Your task to perform on an android device: check the backup settings in the google photos Image 0: 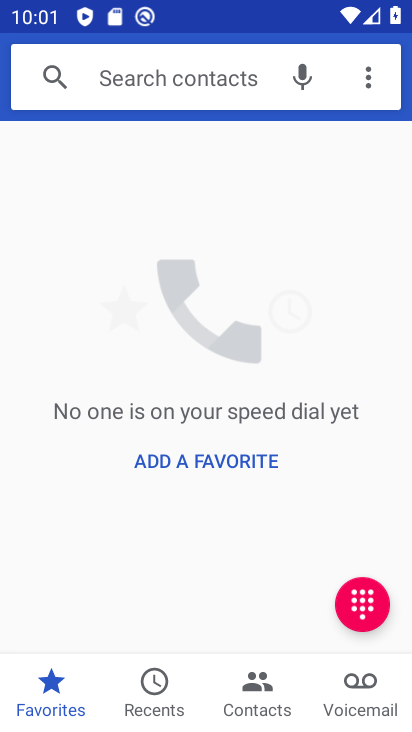
Step 0: press home button
Your task to perform on an android device: check the backup settings in the google photos Image 1: 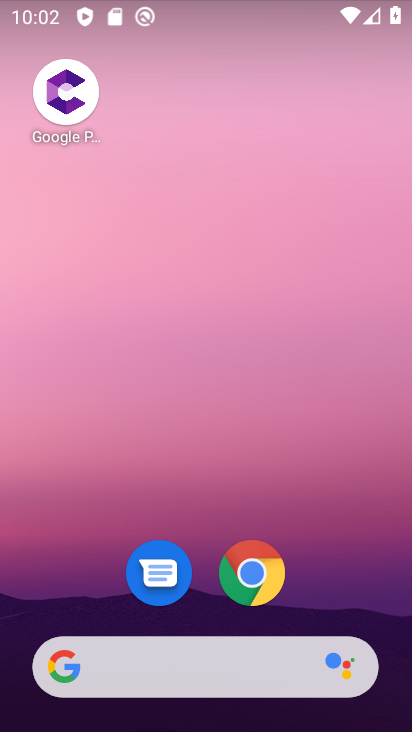
Step 1: drag from (207, 648) to (7, 15)
Your task to perform on an android device: check the backup settings in the google photos Image 2: 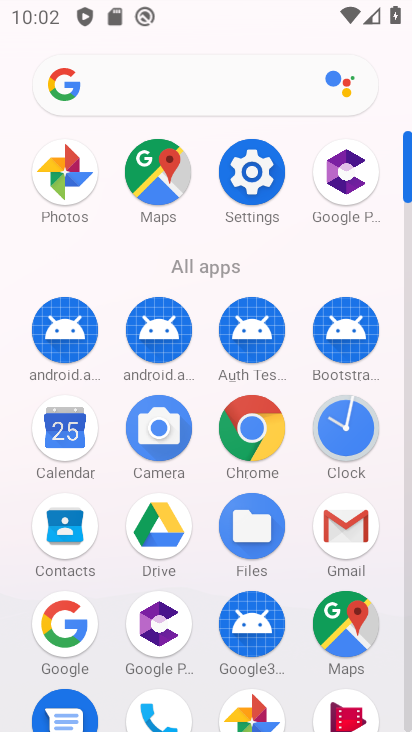
Step 2: click (74, 187)
Your task to perform on an android device: check the backup settings in the google photos Image 3: 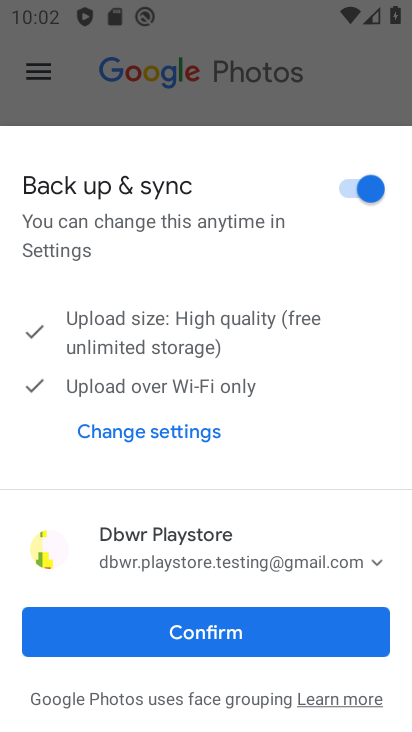
Step 3: click (224, 631)
Your task to perform on an android device: check the backup settings in the google photos Image 4: 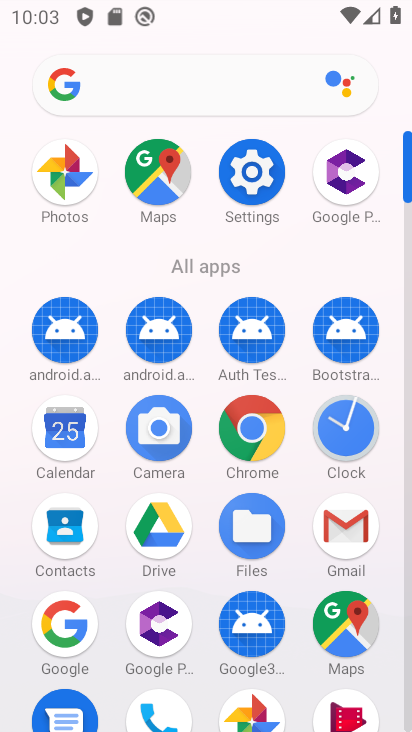
Step 4: click (257, 699)
Your task to perform on an android device: check the backup settings in the google photos Image 5: 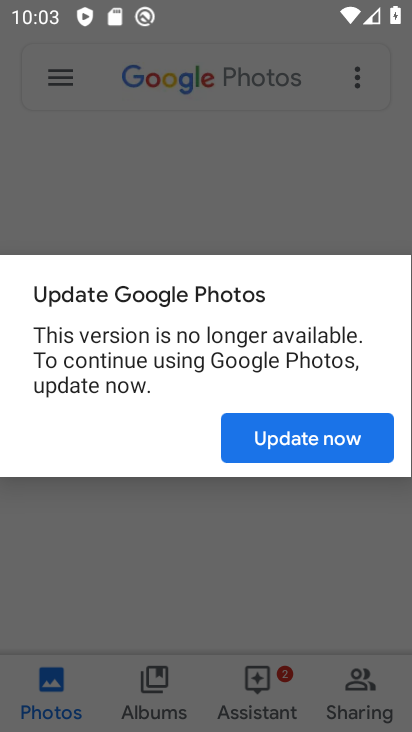
Step 5: click (298, 442)
Your task to perform on an android device: check the backup settings in the google photos Image 6: 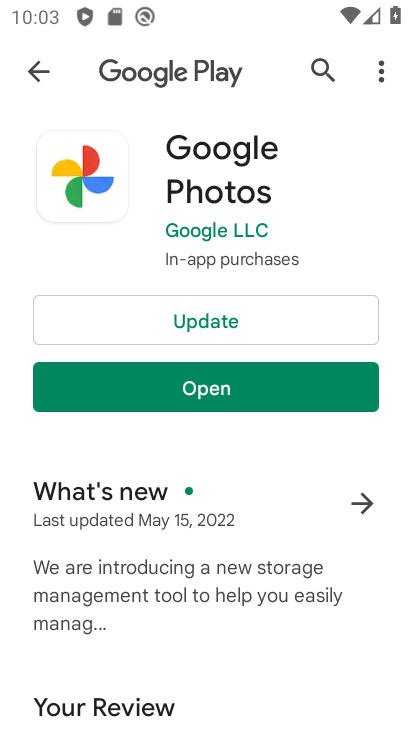
Step 6: click (200, 342)
Your task to perform on an android device: check the backup settings in the google photos Image 7: 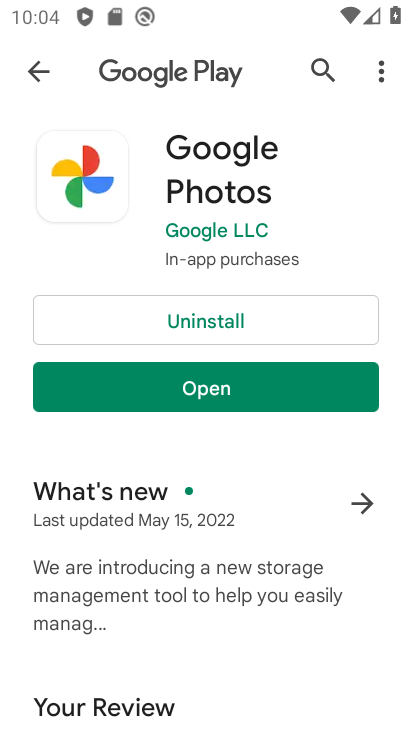
Step 7: click (232, 390)
Your task to perform on an android device: check the backup settings in the google photos Image 8: 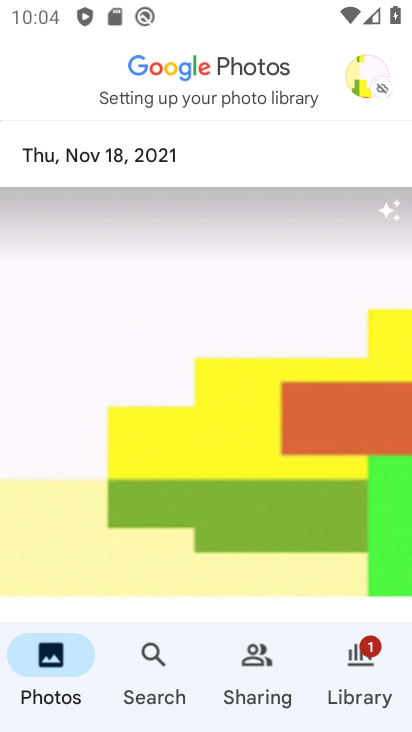
Step 8: click (357, 91)
Your task to perform on an android device: check the backup settings in the google photos Image 9: 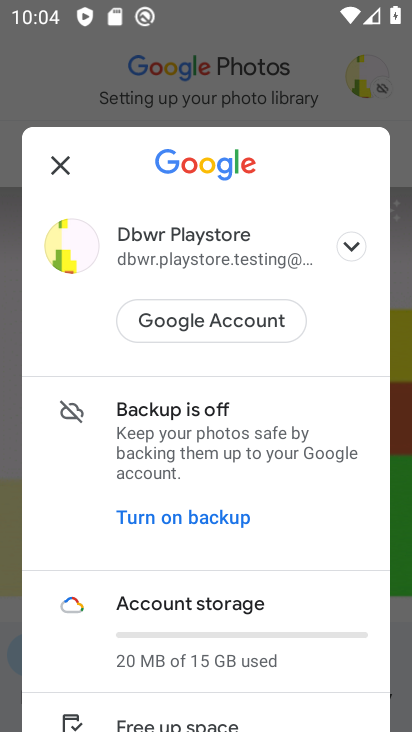
Step 9: drag from (203, 407) to (200, 230)
Your task to perform on an android device: check the backup settings in the google photos Image 10: 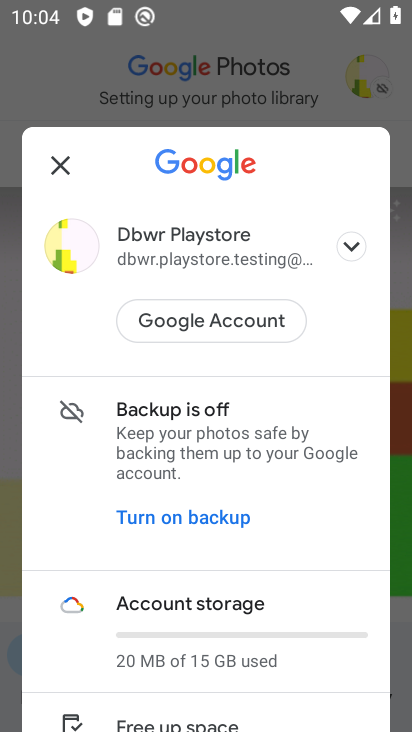
Step 10: drag from (194, 619) to (192, 201)
Your task to perform on an android device: check the backup settings in the google photos Image 11: 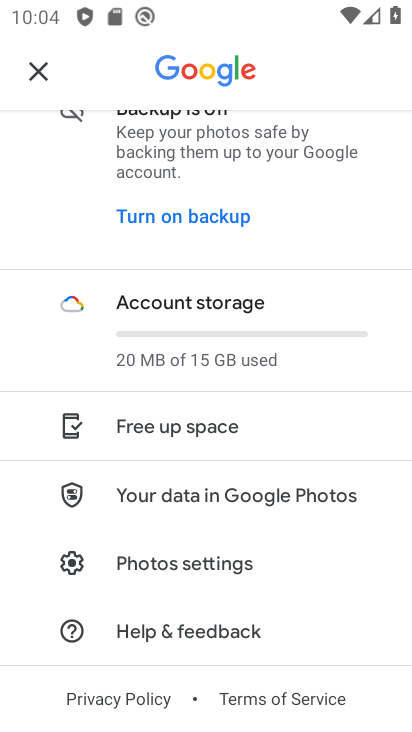
Step 11: click (185, 553)
Your task to perform on an android device: check the backup settings in the google photos Image 12: 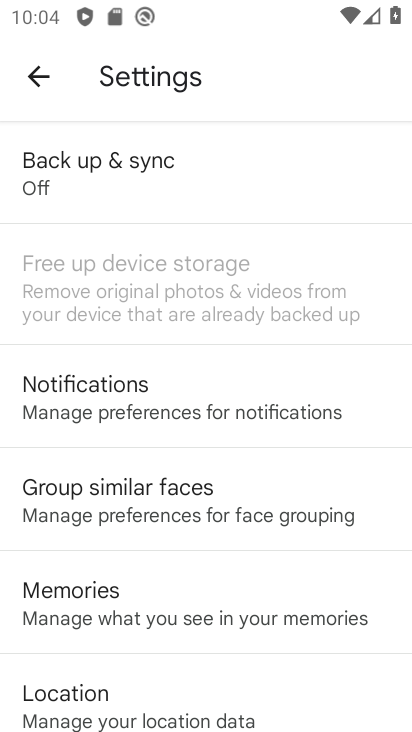
Step 12: click (109, 188)
Your task to perform on an android device: check the backup settings in the google photos Image 13: 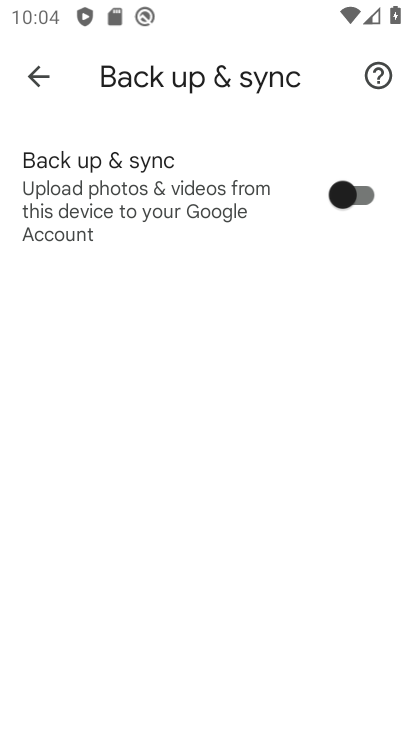
Step 13: task complete